Your task to perform on an android device: turn off translation in the chrome app Image 0: 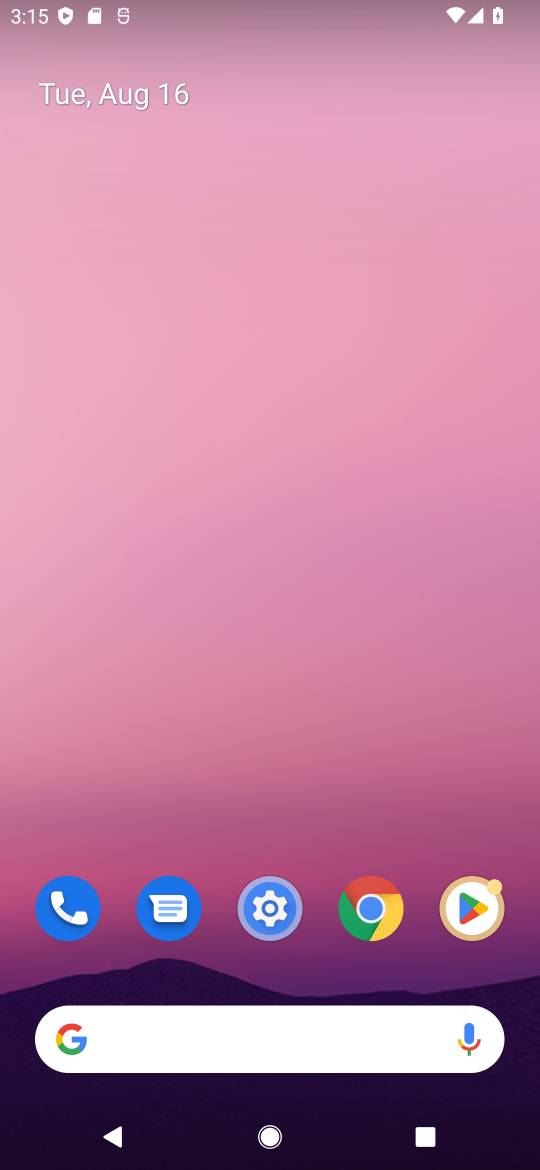
Step 0: press home button
Your task to perform on an android device: turn off translation in the chrome app Image 1: 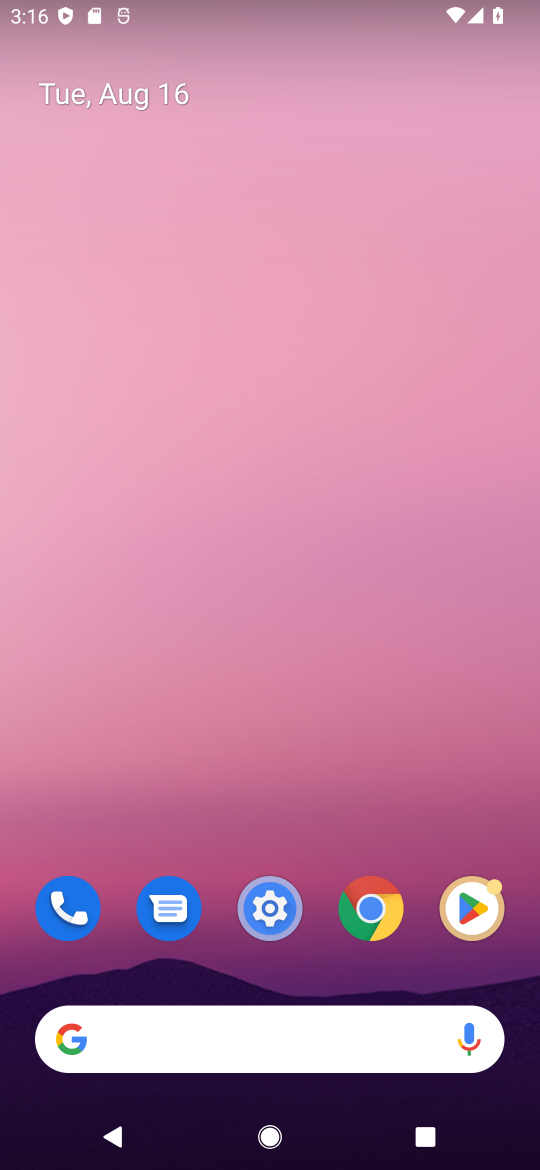
Step 1: drag from (326, 968) to (376, 120)
Your task to perform on an android device: turn off translation in the chrome app Image 2: 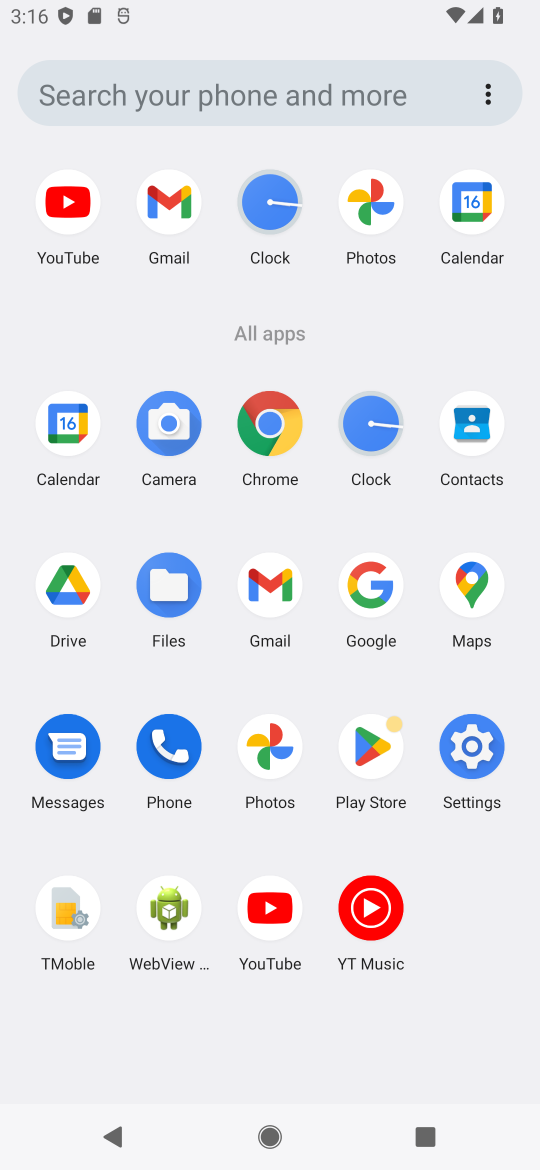
Step 2: click (268, 417)
Your task to perform on an android device: turn off translation in the chrome app Image 3: 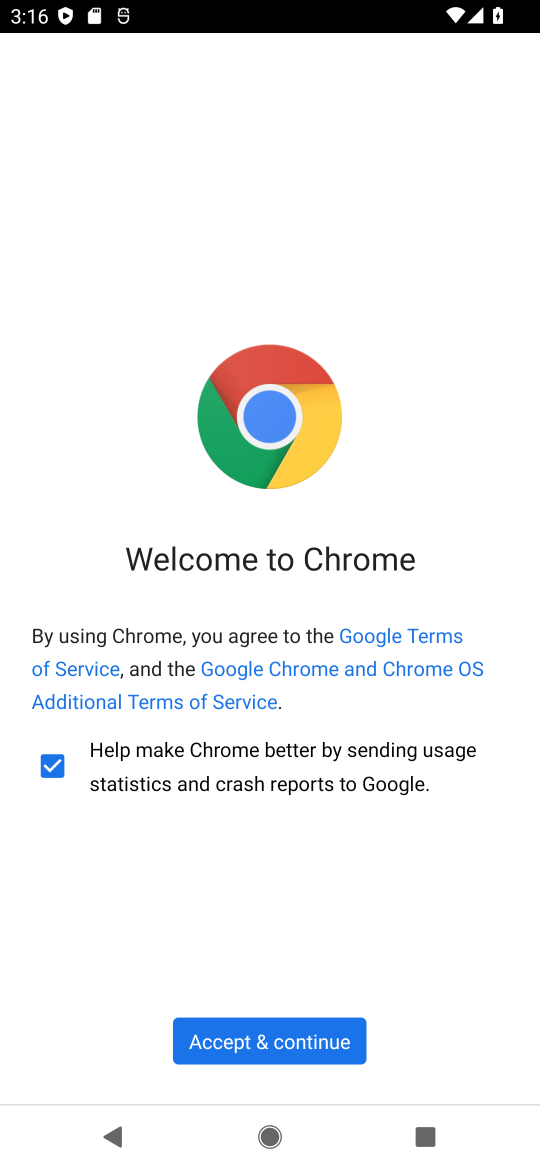
Step 3: click (257, 1030)
Your task to perform on an android device: turn off translation in the chrome app Image 4: 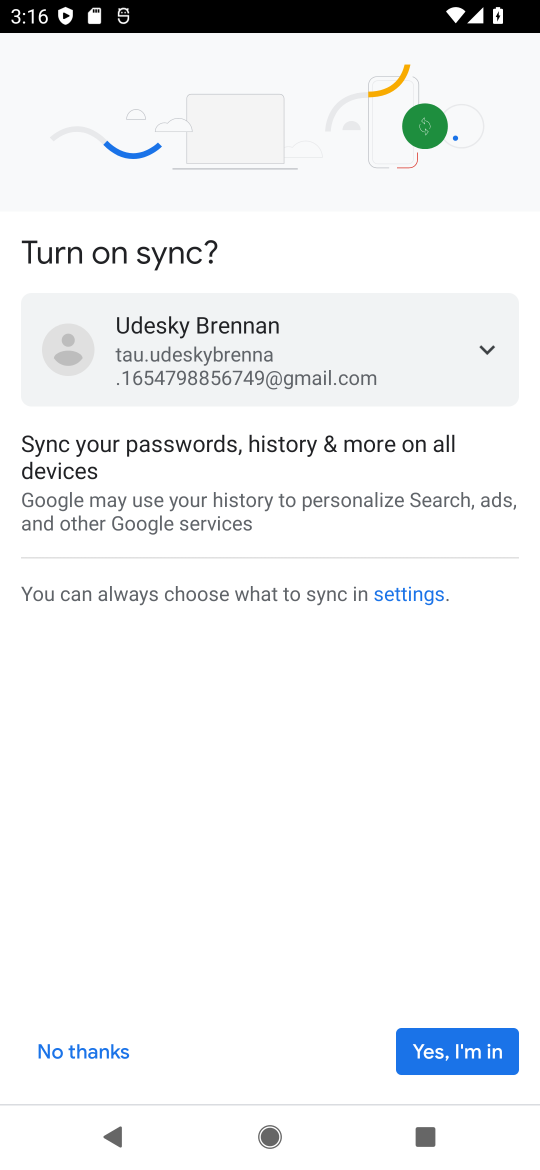
Step 4: click (460, 1048)
Your task to perform on an android device: turn off translation in the chrome app Image 5: 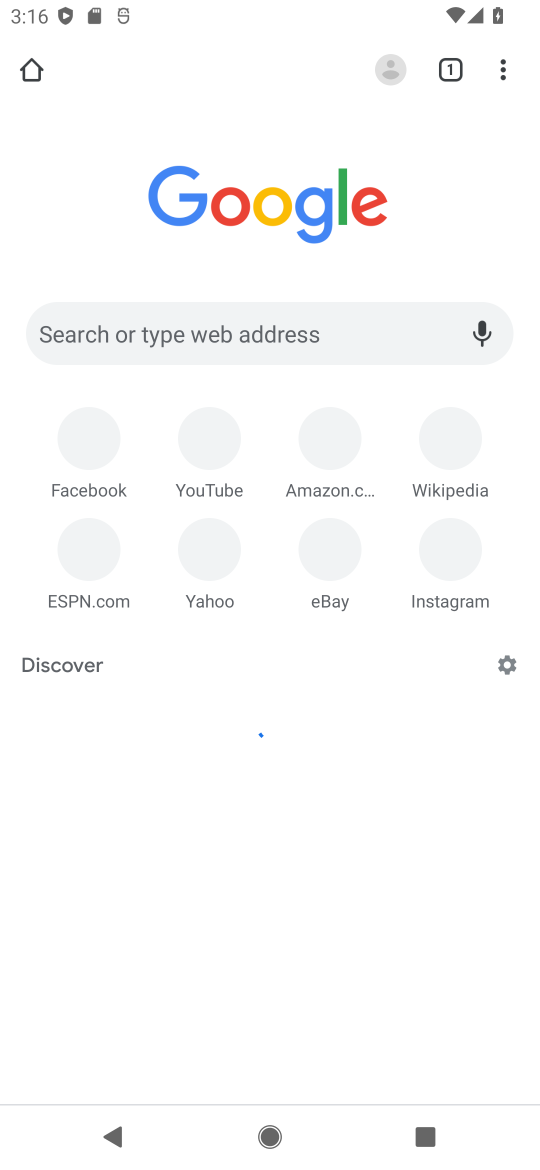
Step 5: click (504, 61)
Your task to perform on an android device: turn off translation in the chrome app Image 6: 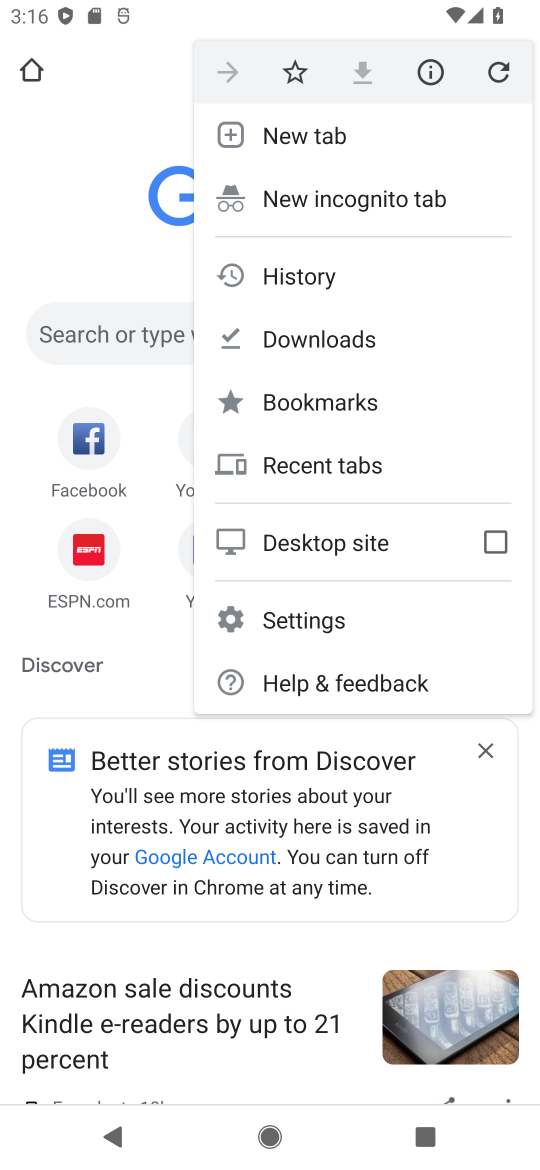
Step 6: click (361, 607)
Your task to perform on an android device: turn off translation in the chrome app Image 7: 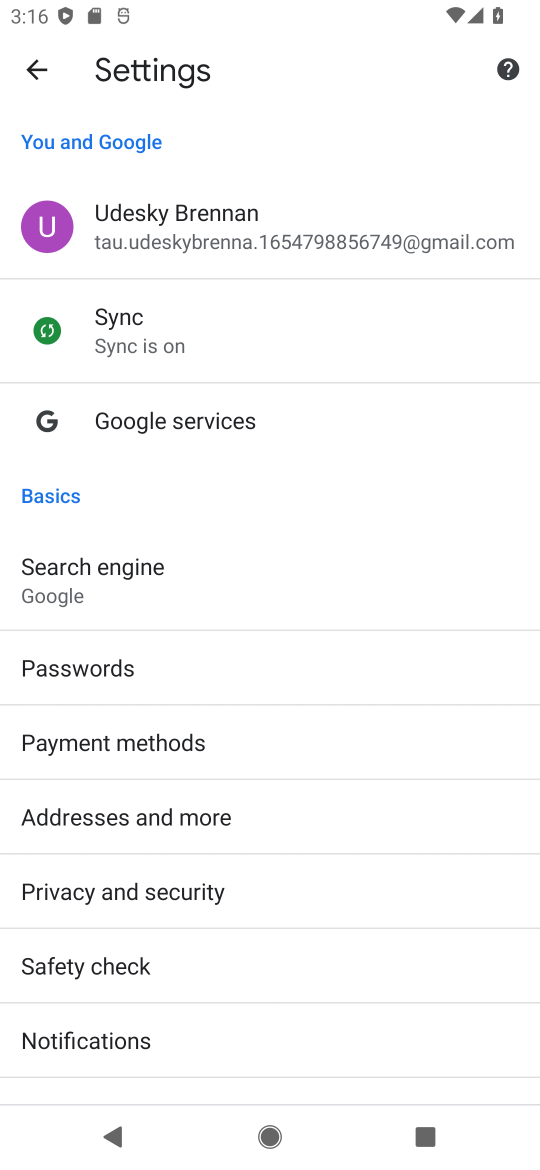
Step 7: drag from (205, 1053) to (262, 437)
Your task to perform on an android device: turn off translation in the chrome app Image 8: 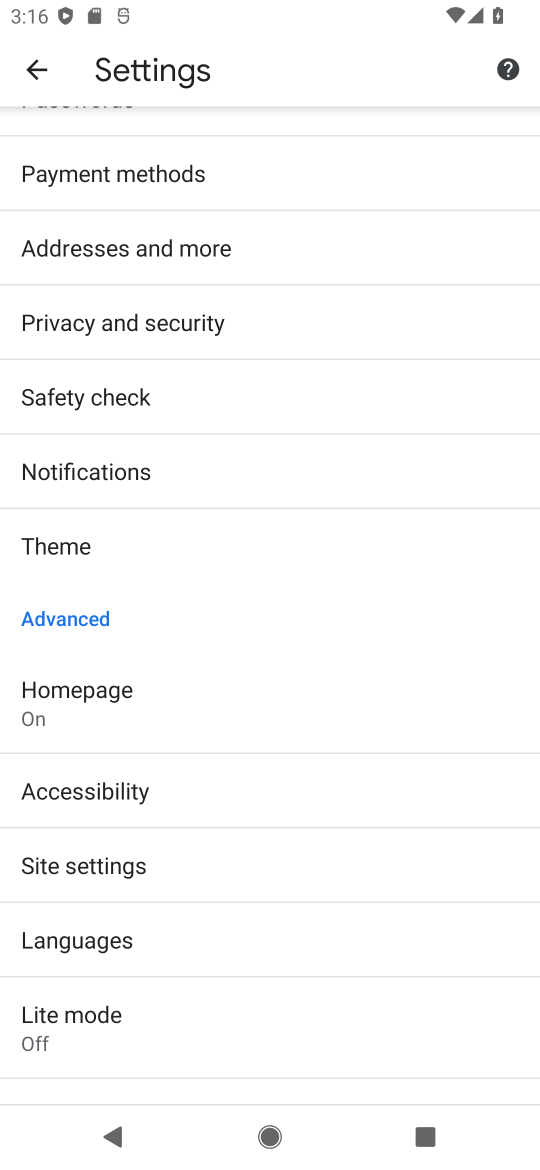
Step 8: click (147, 946)
Your task to perform on an android device: turn off translation in the chrome app Image 9: 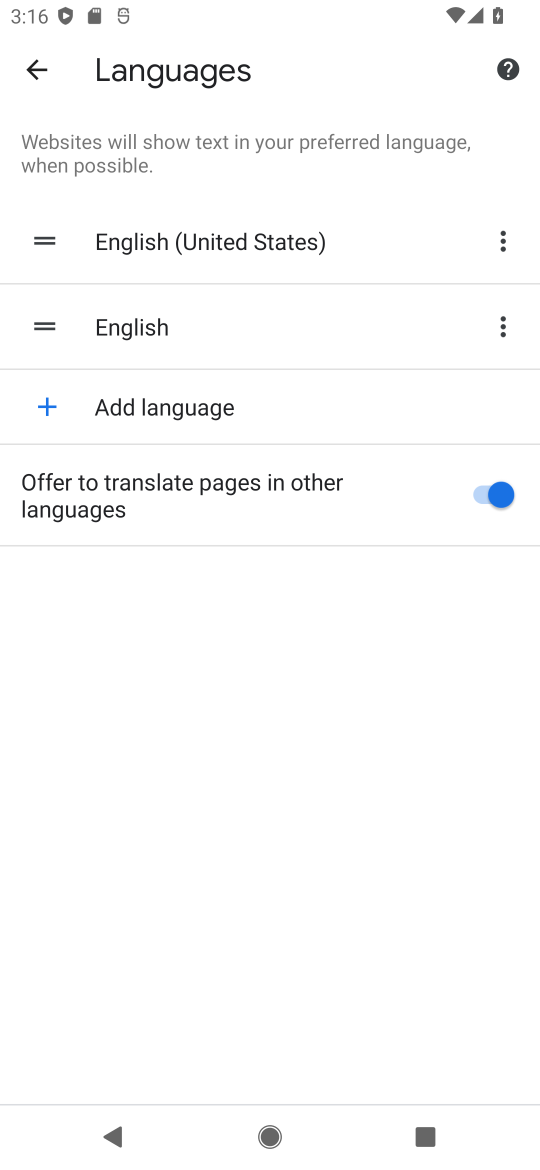
Step 9: click (489, 493)
Your task to perform on an android device: turn off translation in the chrome app Image 10: 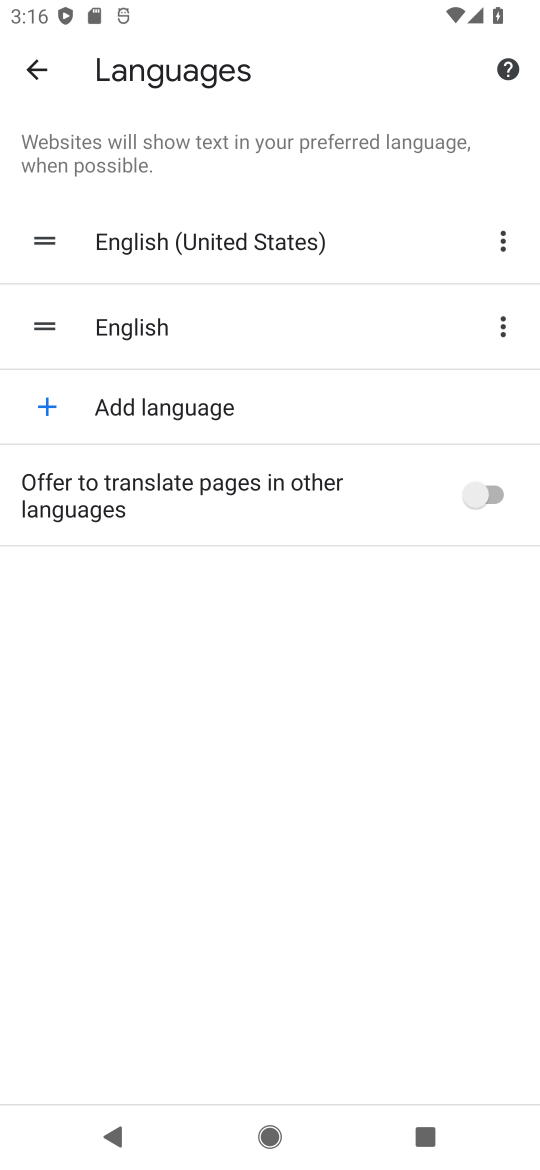
Step 10: task complete